Your task to perform on an android device: Show me the alarms in the clock app Image 0: 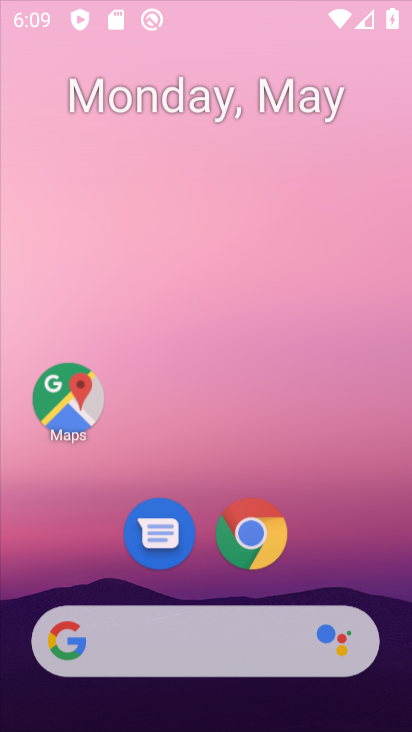
Step 0: press home button
Your task to perform on an android device: Show me the alarms in the clock app Image 1: 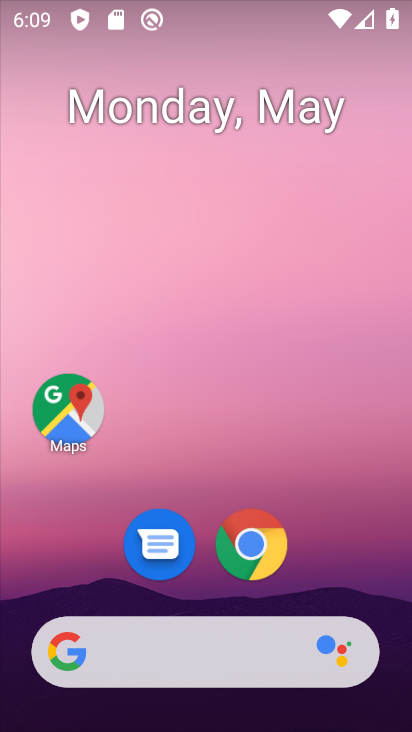
Step 1: click (268, 546)
Your task to perform on an android device: Show me the alarms in the clock app Image 2: 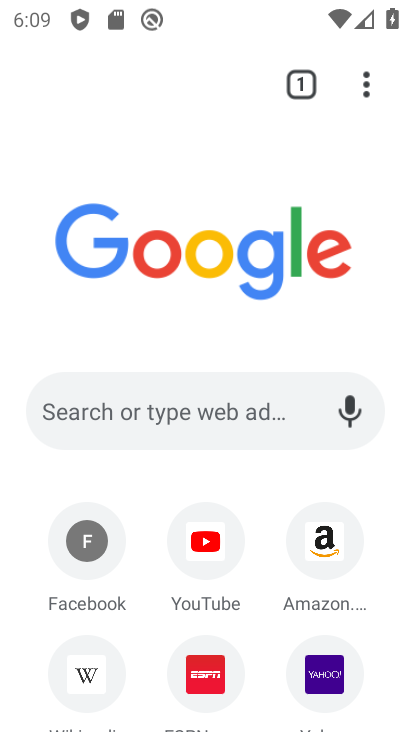
Step 2: press home button
Your task to perform on an android device: Show me the alarms in the clock app Image 3: 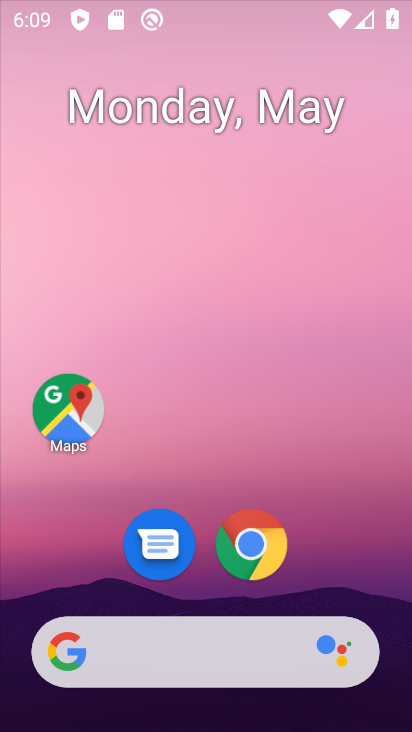
Step 3: drag from (325, 507) to (201, 34)
Your task to perform on an android device: Show me the alarms in the clock app Image 4: 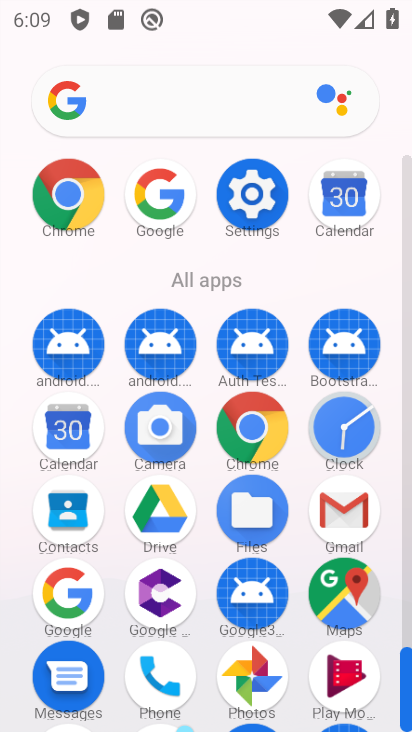
Step 4: click (365, 422)
Your task to perform on an android device: Show me the alarms in the clock app Image 5: 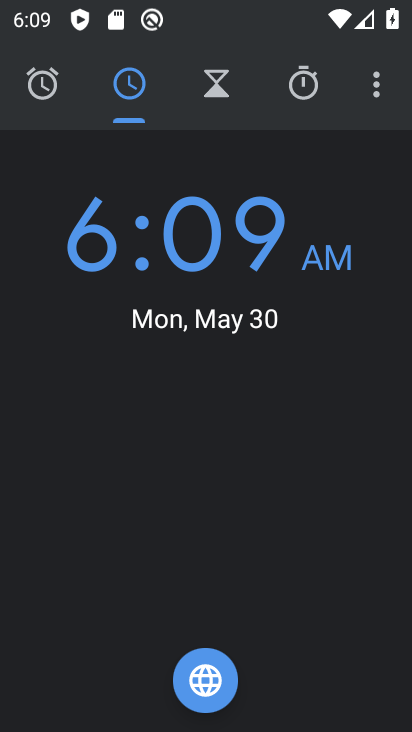
Step 5: click (43, 91)
Your task to perform on an android device: Show me the alarms in the clock app Image 6: 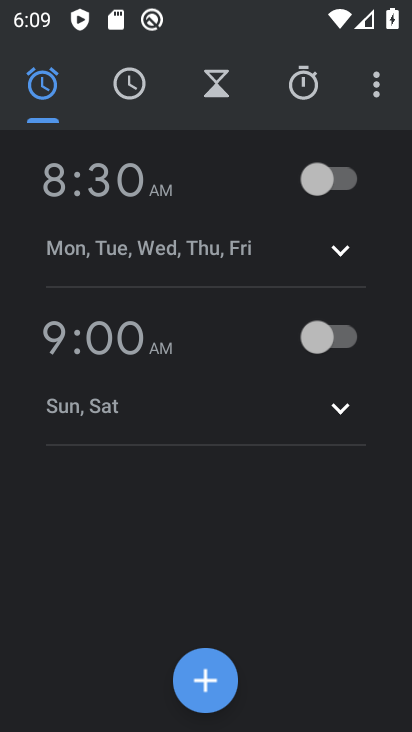
Step 6: task complete